Your task to perform on an android device: Do I have any events this weekend? Image 0: 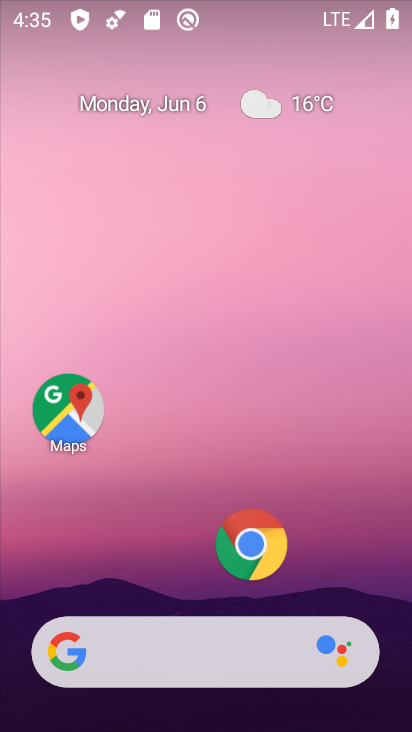
Step 0: drag from (191, 594) to (255, 82)
Your task to perform on an android device: Do I have any events this weekend? Image 1: 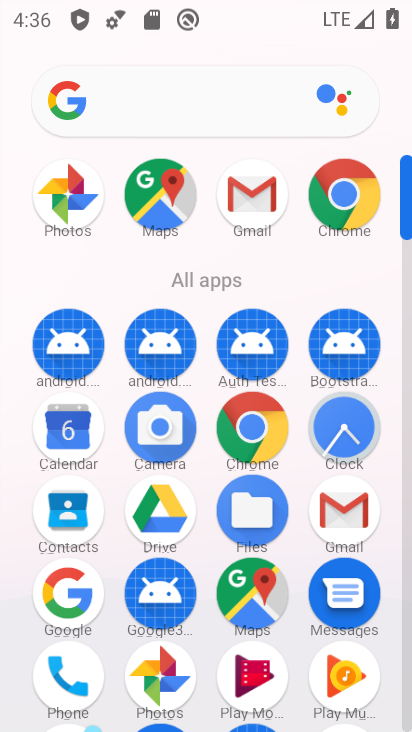
Step 1: click (67, 428)
Your task to perform on an android device: Do I have any events this weekend? Image 2: 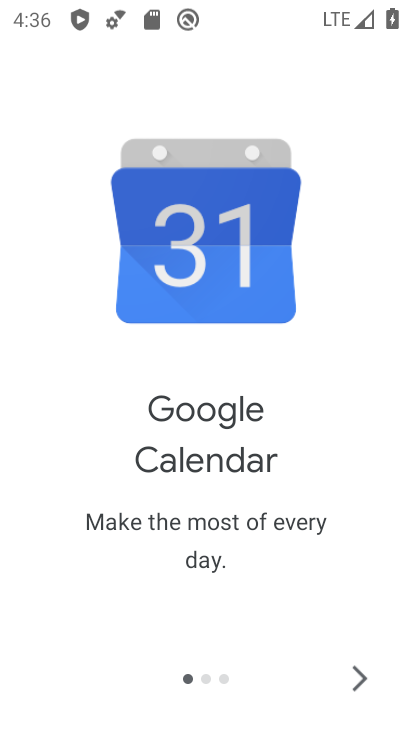
Step 2: click (347, 673)
Your task to perform on an android device: Do I have any events this weekend? Image 3: 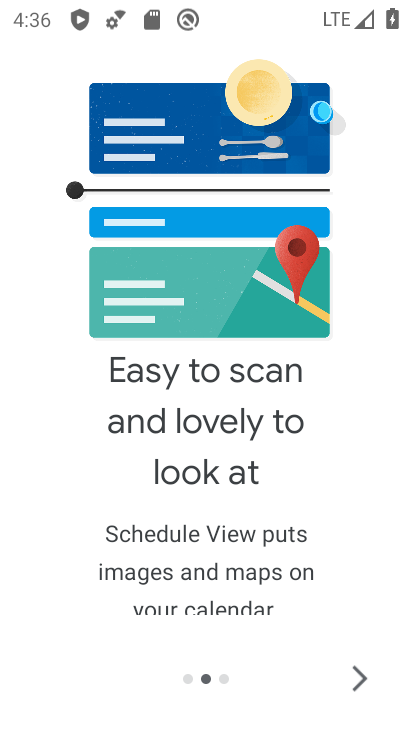
Step 3: click (352, 672)
Your task to perform on an android device: Do I have any events this weekend? Image 4: 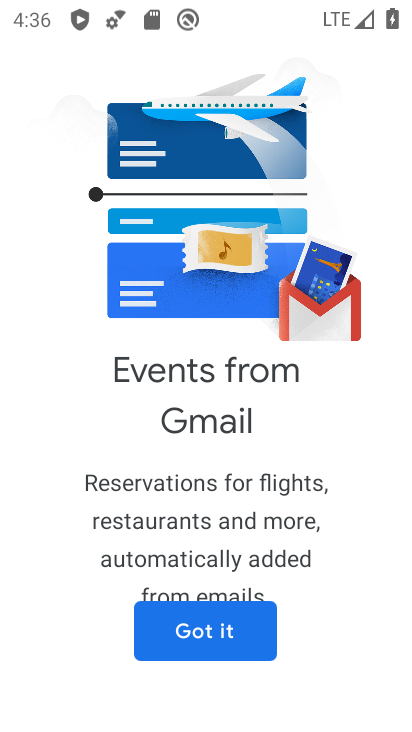
Step 4: click (209, 630)
Your task to perform on an android device: Do I have any events this weekend? Image 5: 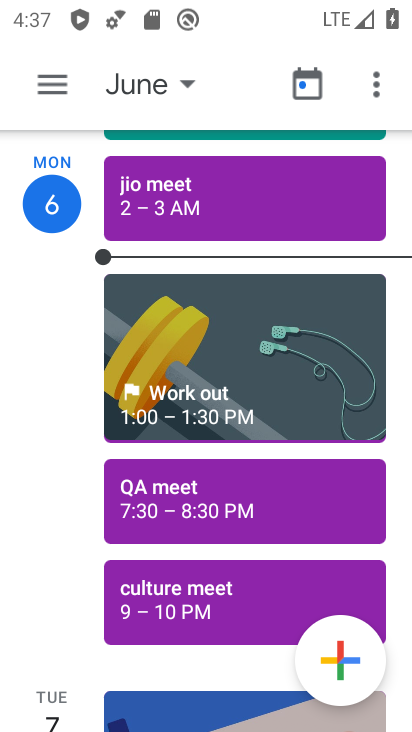
Step 5: task complete